Your task to perform on an android device: open app "TextNow: Call + Text Unlimited" (install if not already installed) Image 0: 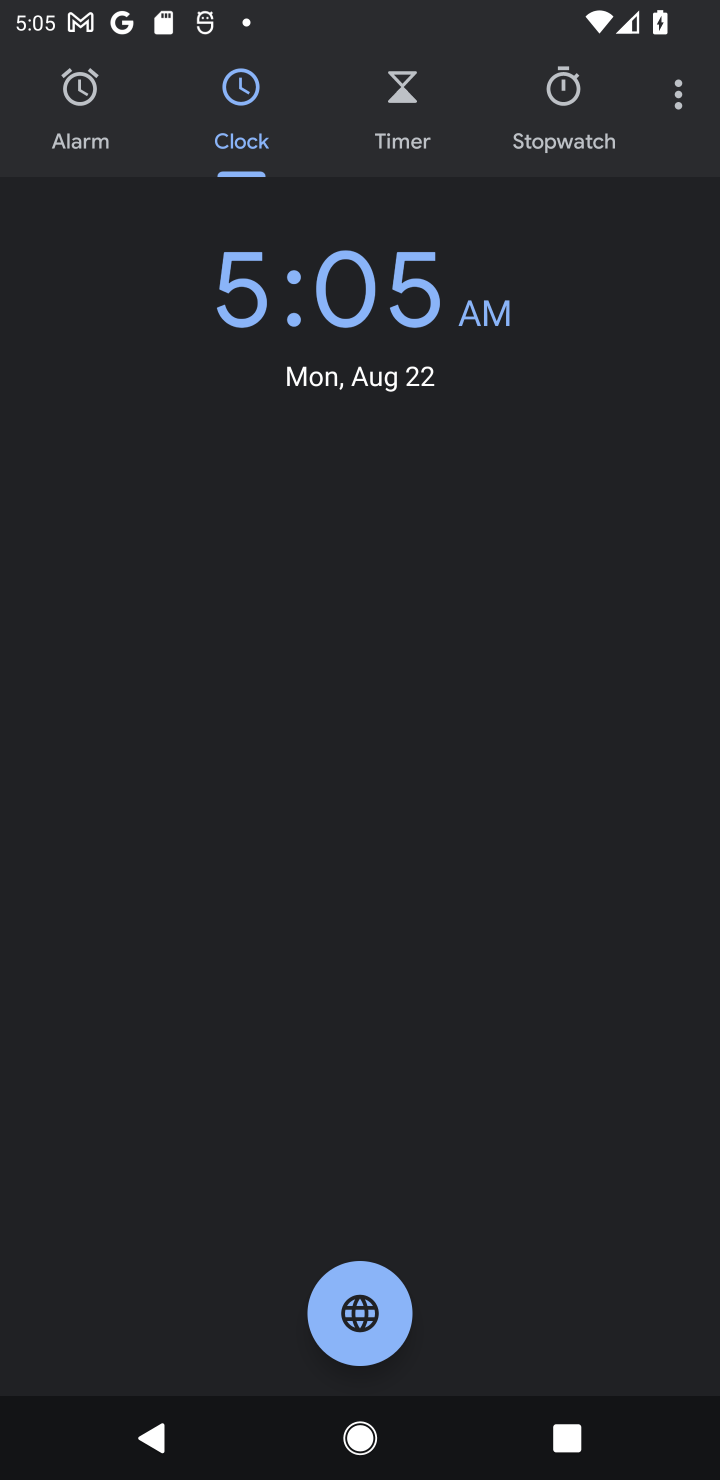
Step 0: press home button
Your task to perform on an android device: open app "TextNow: Call + Text Unlimited" (install if not already installed) Image 1: 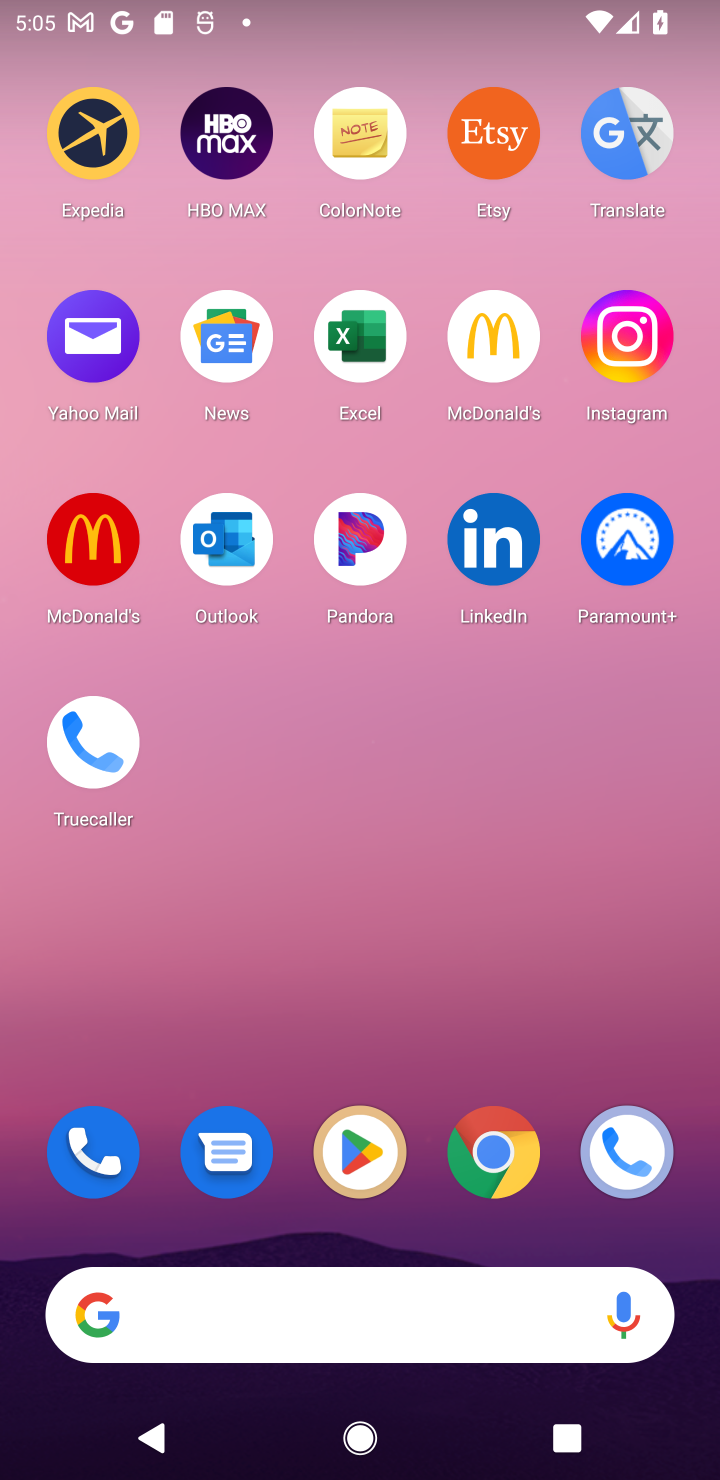
Step 1: click (379, 1152)
Your task to perform on an android device: open app "TextNow: Call + Text Unlimited" (install if not already installed) Image 2: 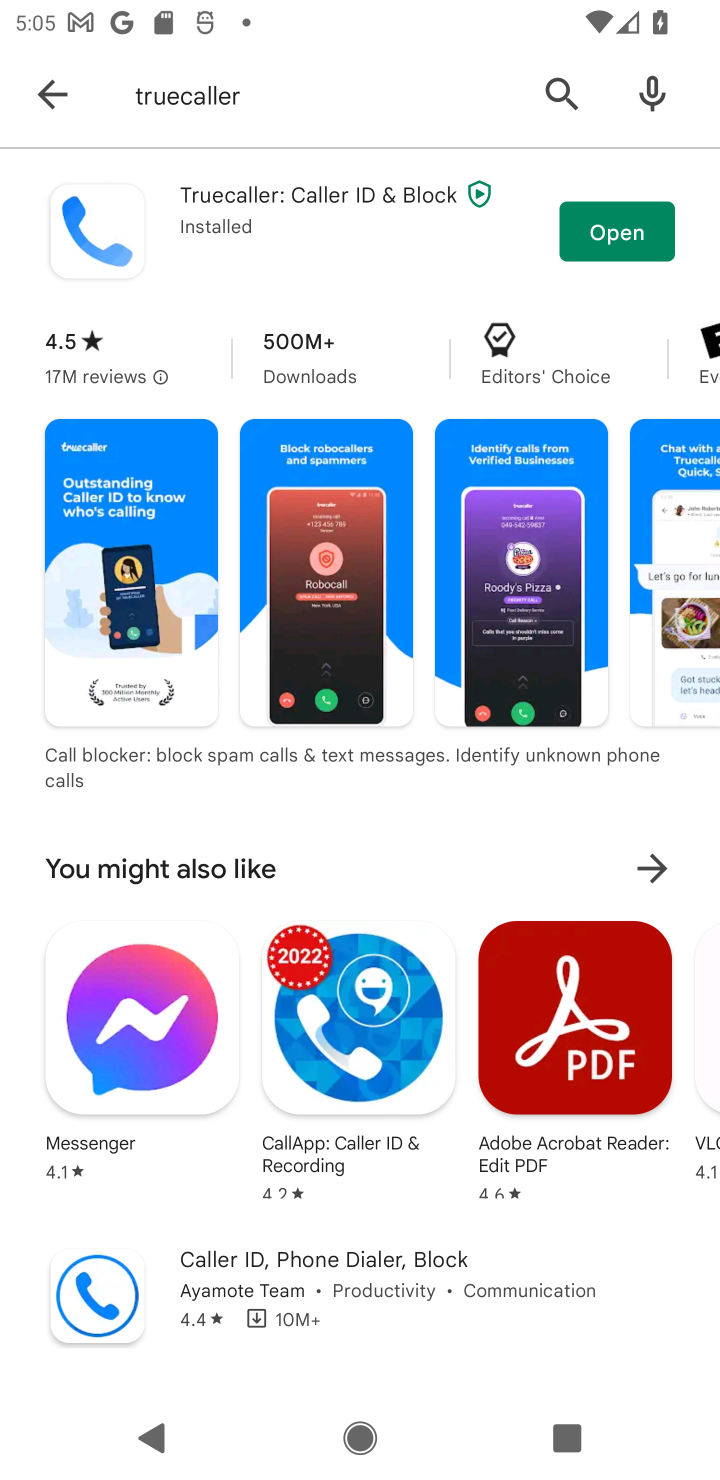
Step 2: click (39, 86)
Your task to perform on an android device: open app "TextNow: Call + Text Unlimited" (install if not already installed) Image 3: 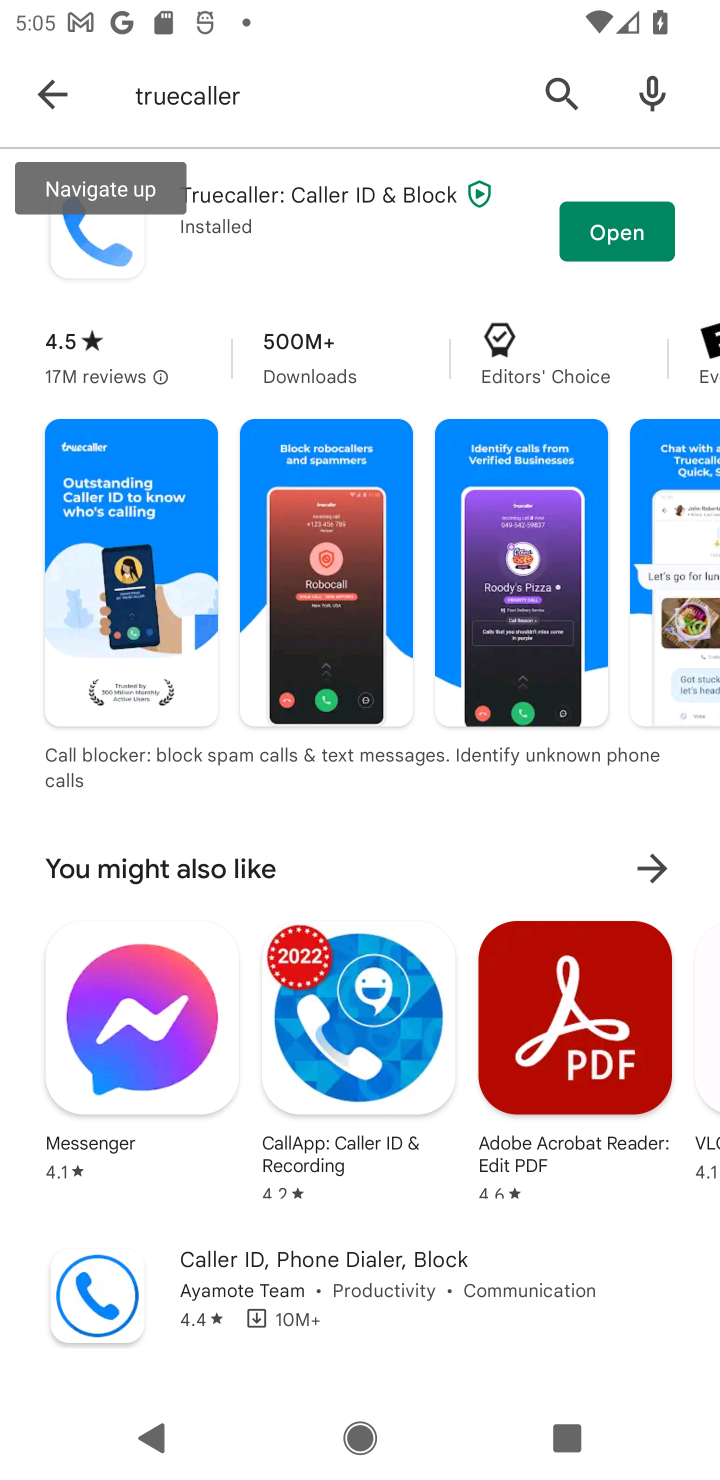
Step 3: click (41, 89)
Your task to perform on an android device: open app "TextNow: Call + Text Unlimited" (install if not already installed) Image 4: 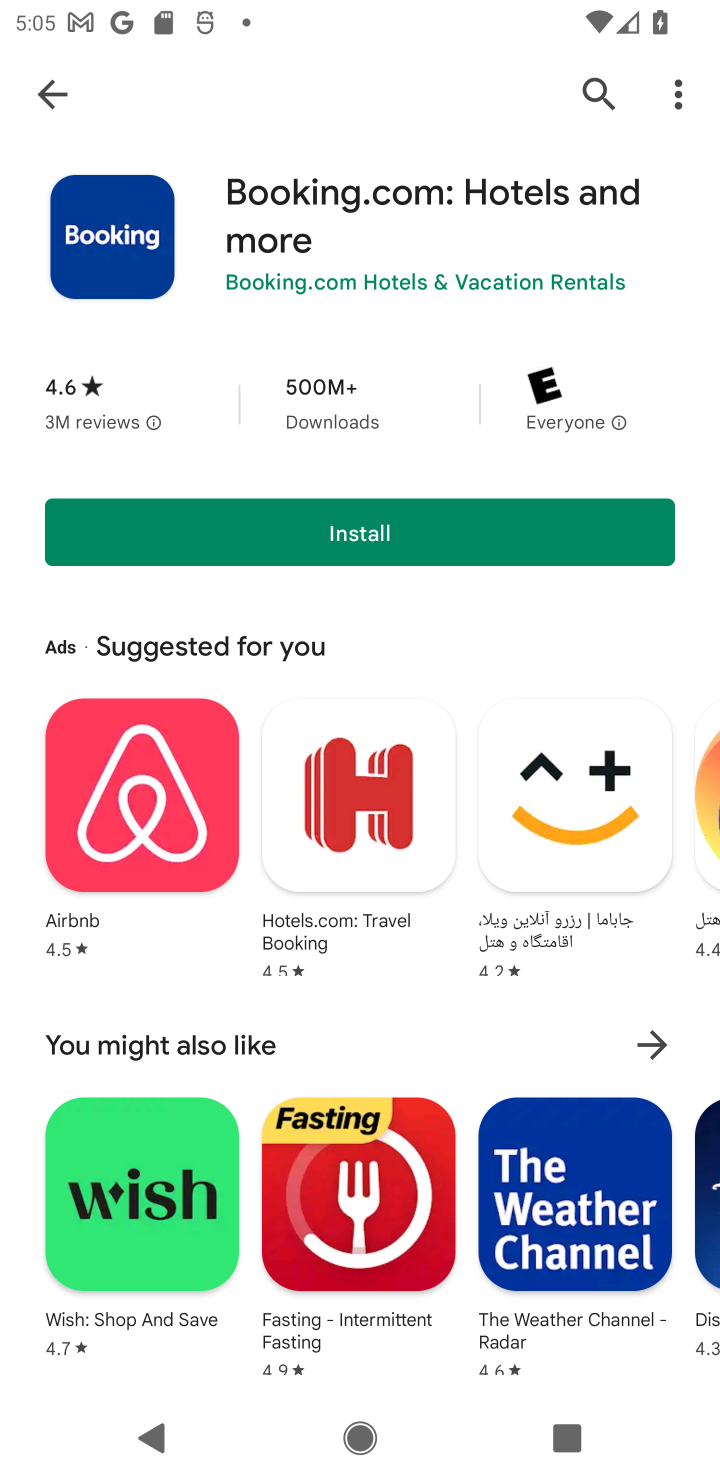
Step 4: click (580, 104)
Your task to perform on an android device: open app "TextNow: Call + Text Unlimited" (install if not already installed) Image 5: 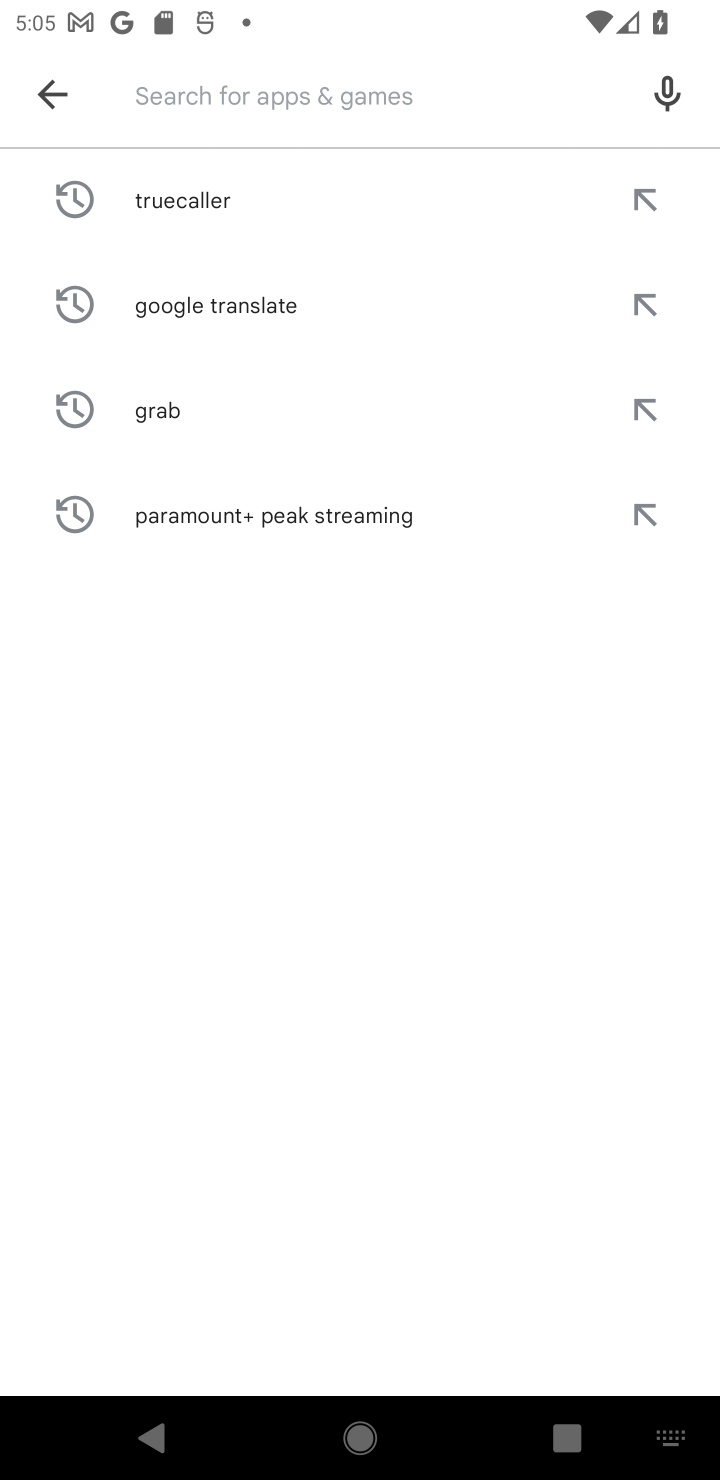
Step 5: type "TextNow: Call + Text Unlimited"
Your task to perform on an android device: open app "TextNow: Call + Text Unlimited" (install if not already installed) Image 6: 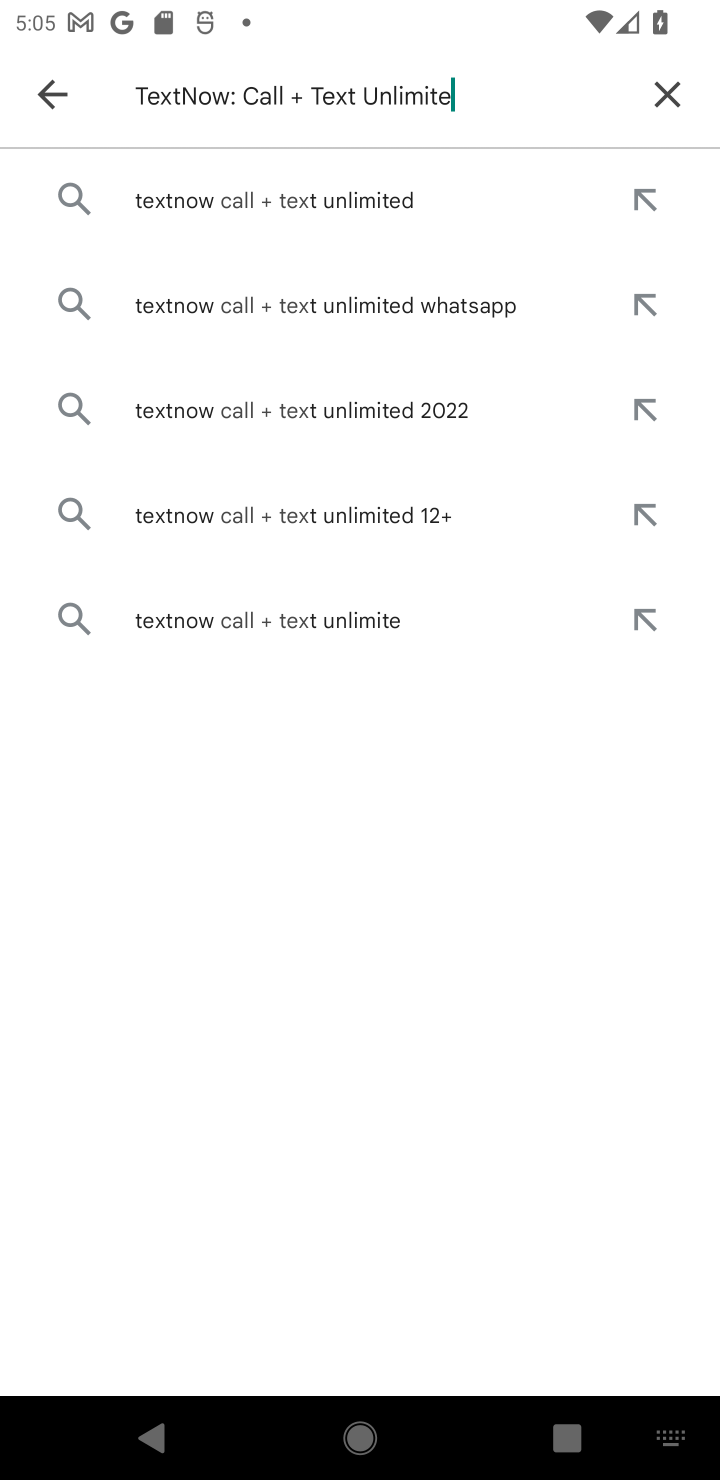
Step 6: type ""
Your task to perform on an android device: open app "TextNow: Call + Text Unlimited" (install if not already installed) Image 7: 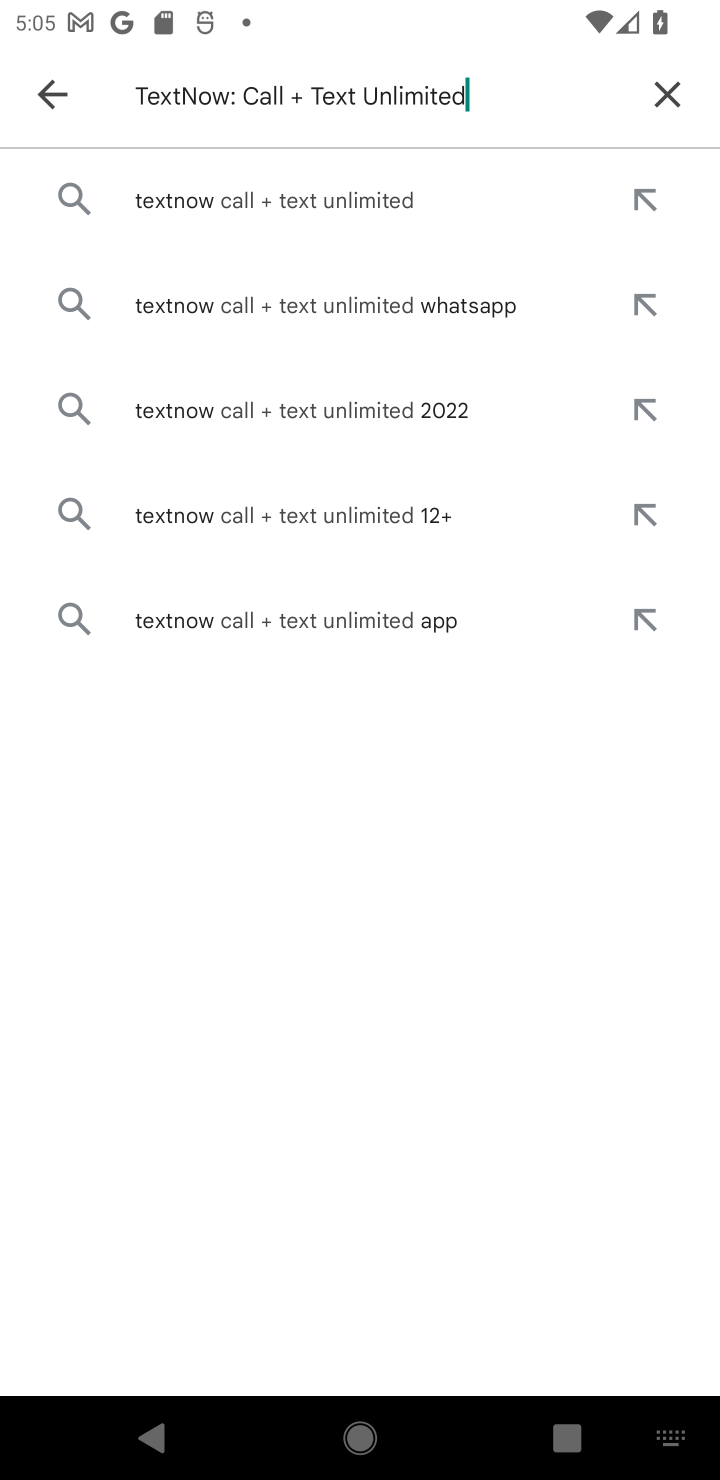
Step 7: click (251, 191)
Your task to perform on an android device: open app "TextNow: Call + Text Unlimited" (install if not already installed) Image 8: 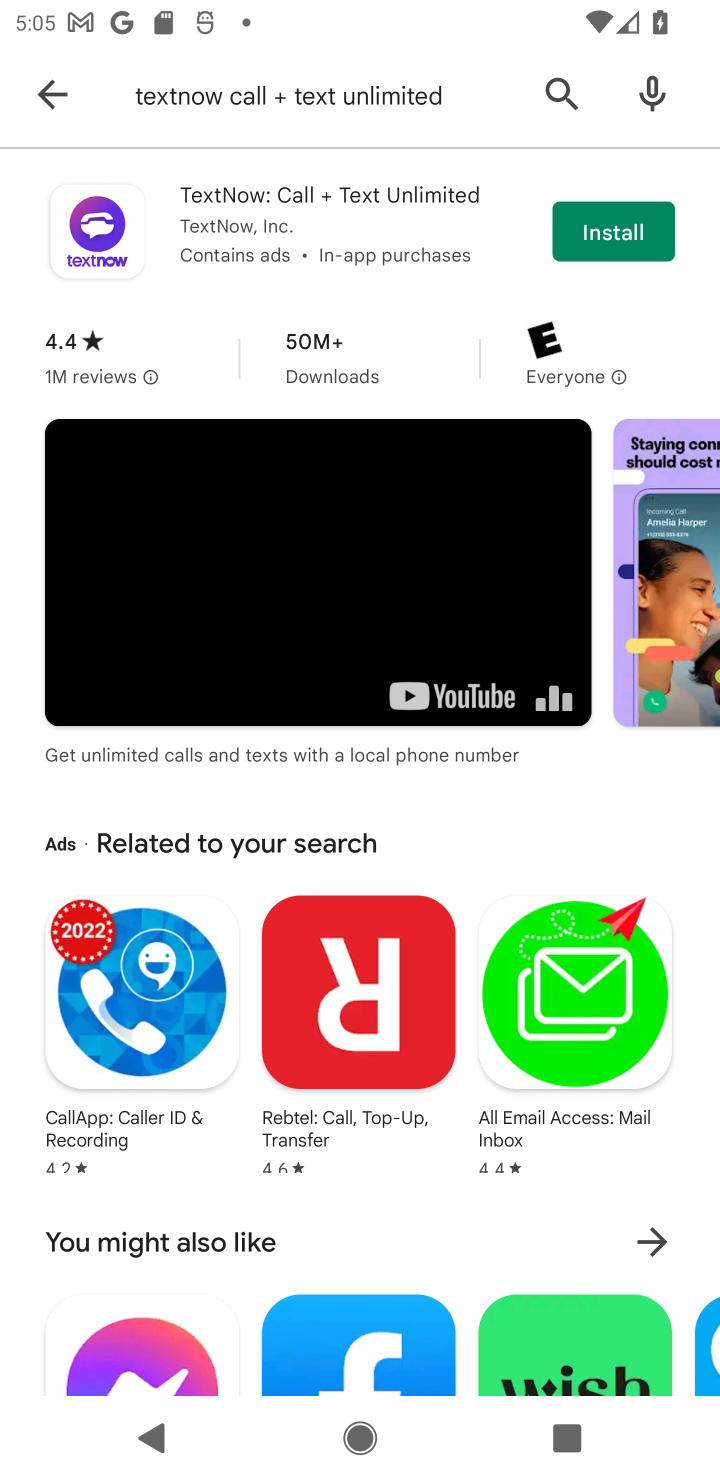
Step 8: click (618, 229)
Your task to perform on an android device: open app "TextNow: Call + Text Unlimited" (install if not already installed) Image 9: 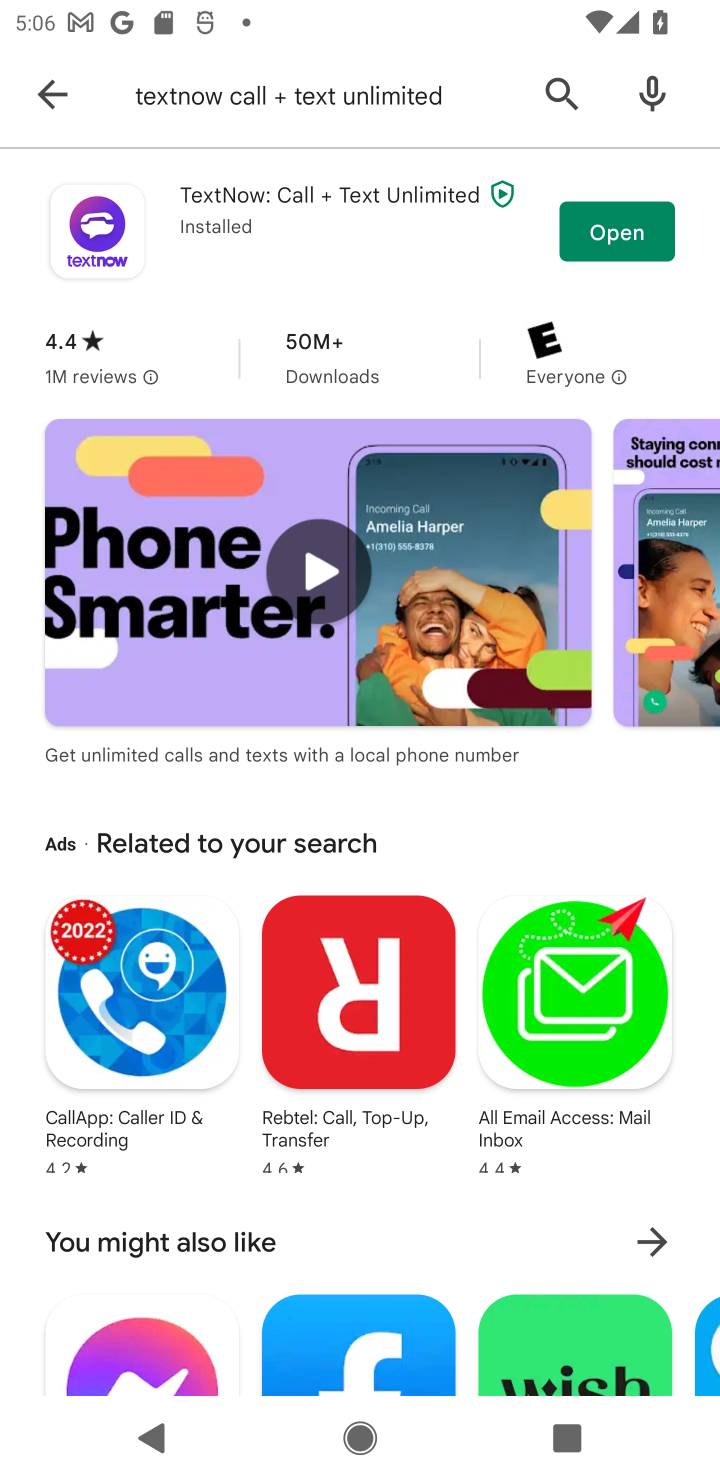
Step 9: click (595, 232)
Your task to perform on an android device: open app "TextNow: Call + Text Unlimited" (install if not already installed) Image 10: 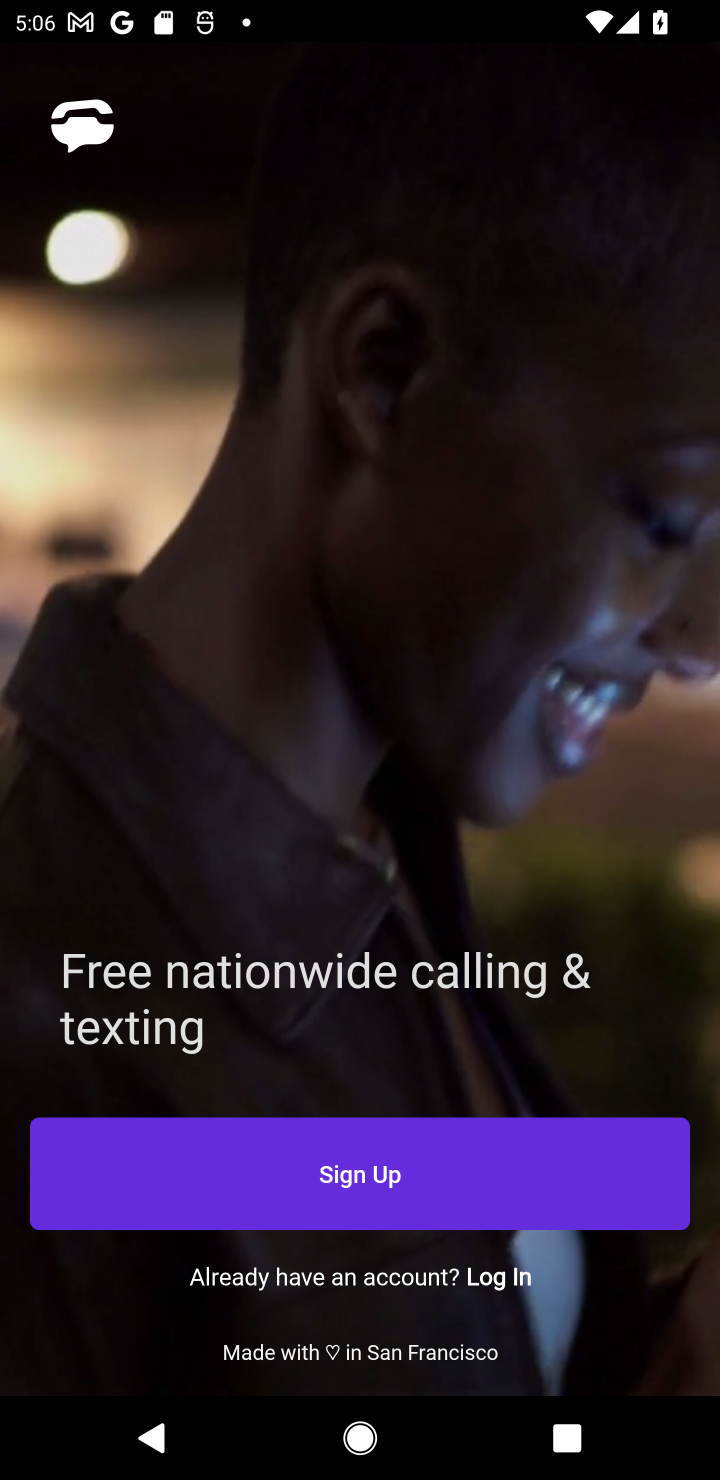
Step 10: task complete